Your task to perform on an android device: set the stopwatch Image 0: 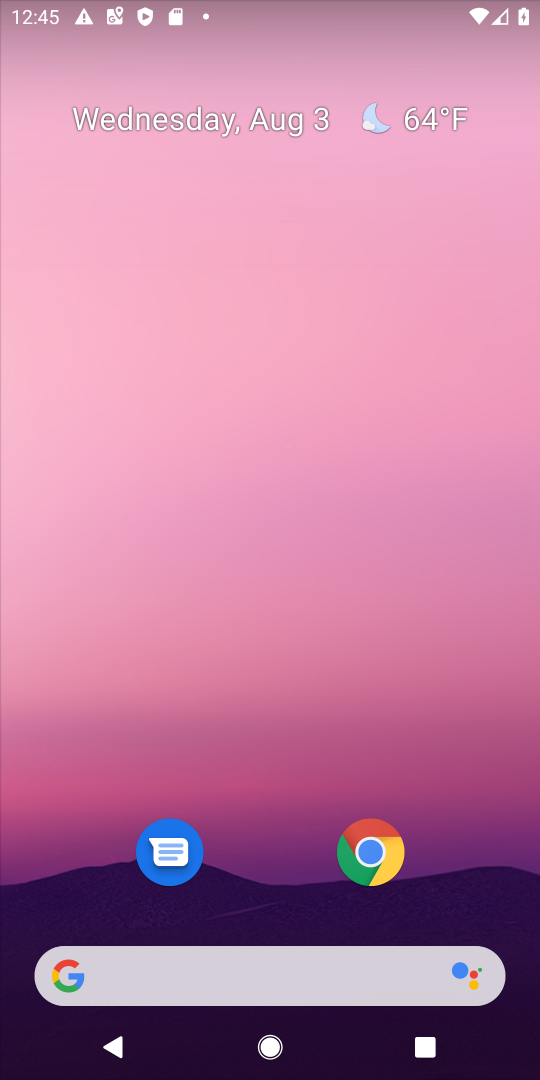
Step 0: drag from (521, 872) to (293, 69)
Your task to perform on an android device: set the stopwatch Image 1: 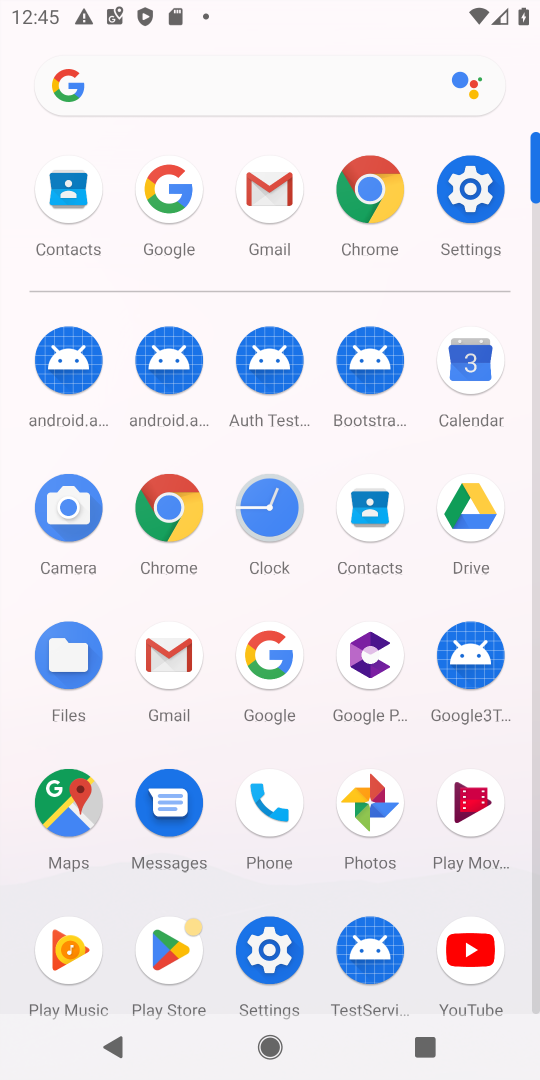
Step 1: click (264, 499)
Your task to perform on an android device: set the stopwatch Image 2: 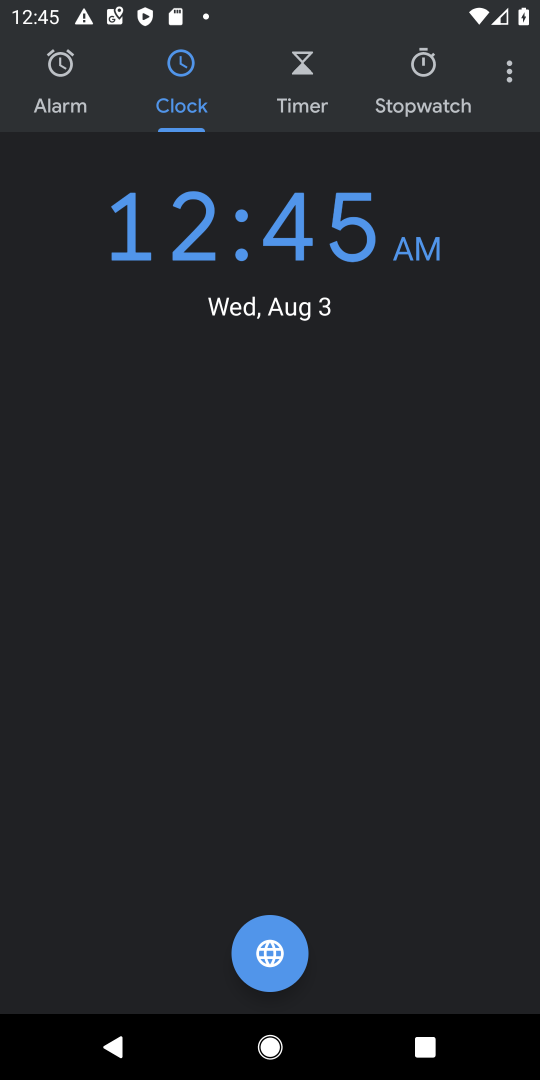
Step 2: click (430, 78)
Your task to perform on an android device: set the stopwatch Image 3: 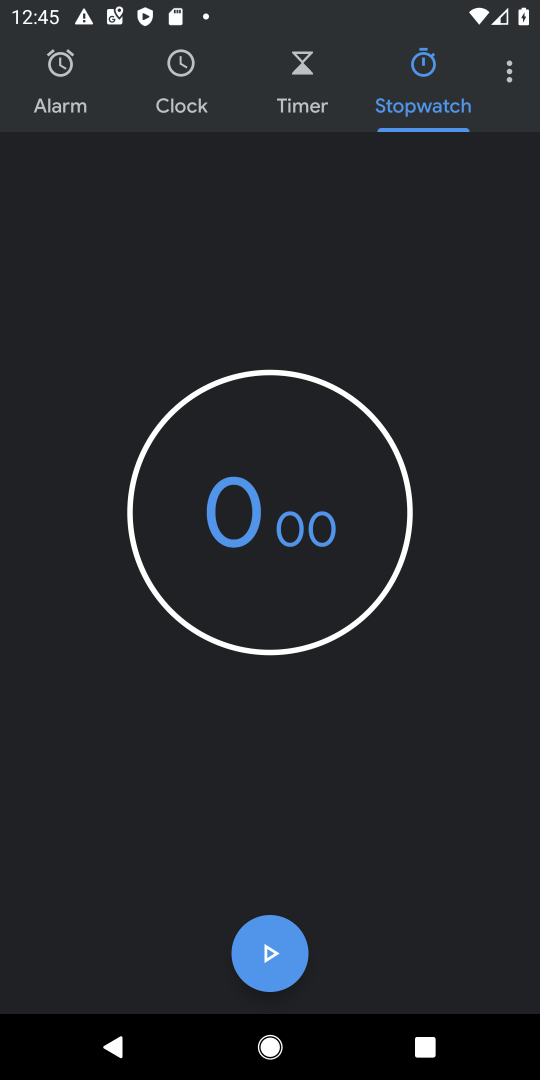
Step 3: click (297, 969)
Your task to perform on an android device: set the stopwatch Image 4: 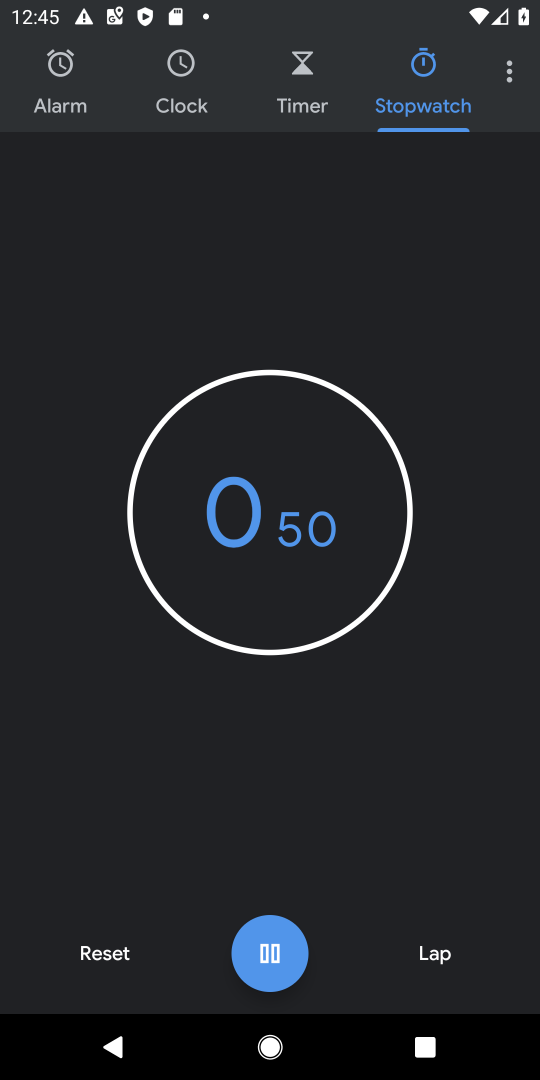
Step 4: click (288, 954)
Your task to perform on an android device: set the stopwatch Image 5: 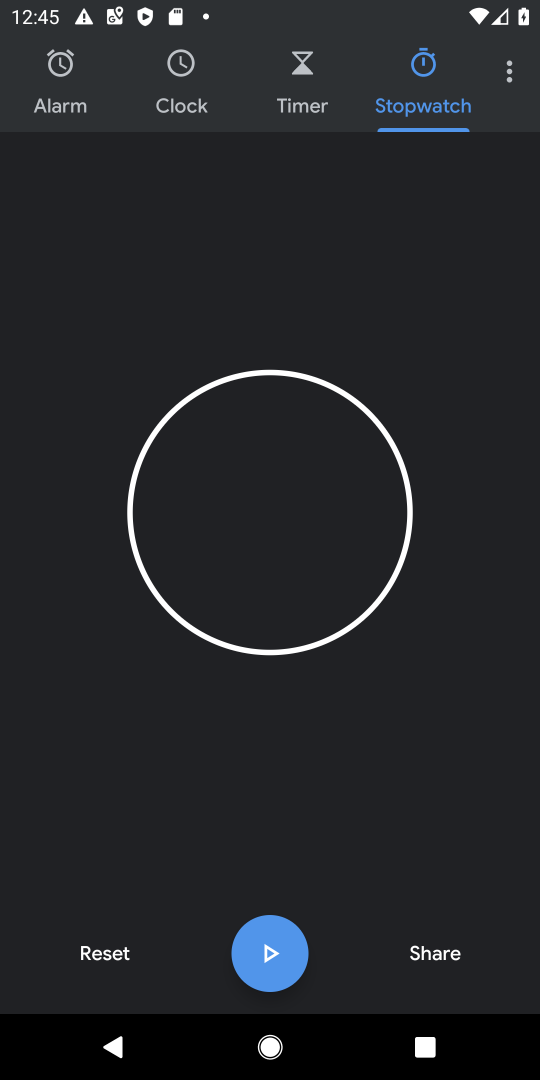
Step 5: task complete